Your task to perform on an android device: move a message to another label in the gmail app Image 0: 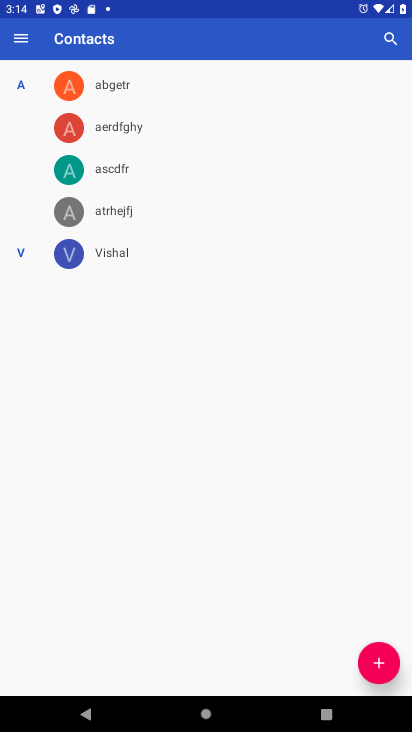
Step 0: press home button
Your task to perform on an android device: move a message to another label in the gmail app Image 1: 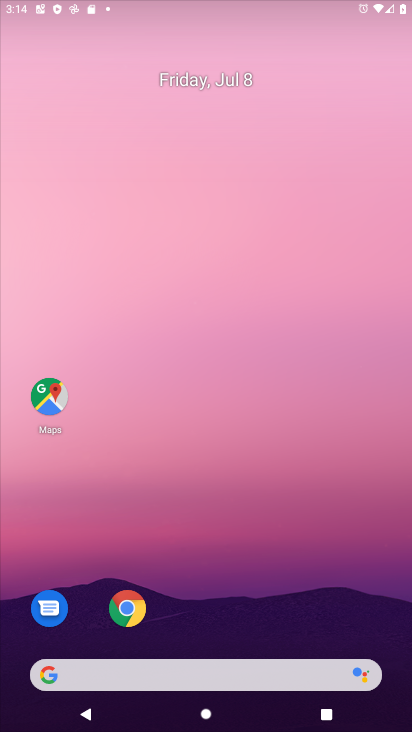
Step 1: drag from (309, 678) to (366, 38)
Your task to perform on an android device: move a message to another label in the gmail app Image 2: 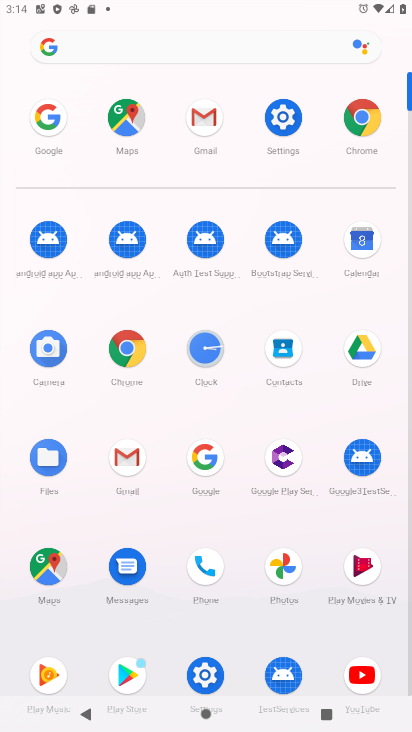
Step 2: click (119, 458)
Your task to perform on an android device: move a message to another label in the gmail app Image 3: 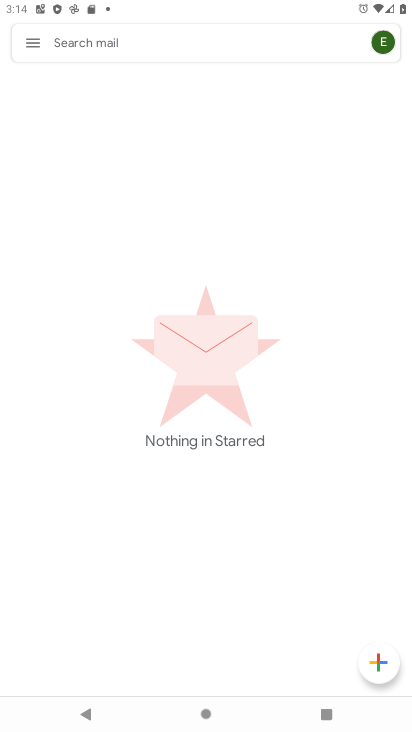
Step 3: click (40, 45)
Your task to perform on an android device: move a message to another label in the gmail app Image 4: 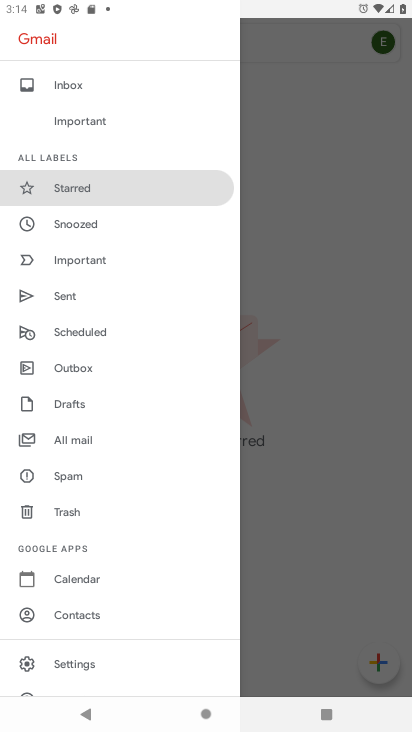
Step 4: task complete